Your task to perform on an android device: Search for flights from Tokyo to NYC Image 0: 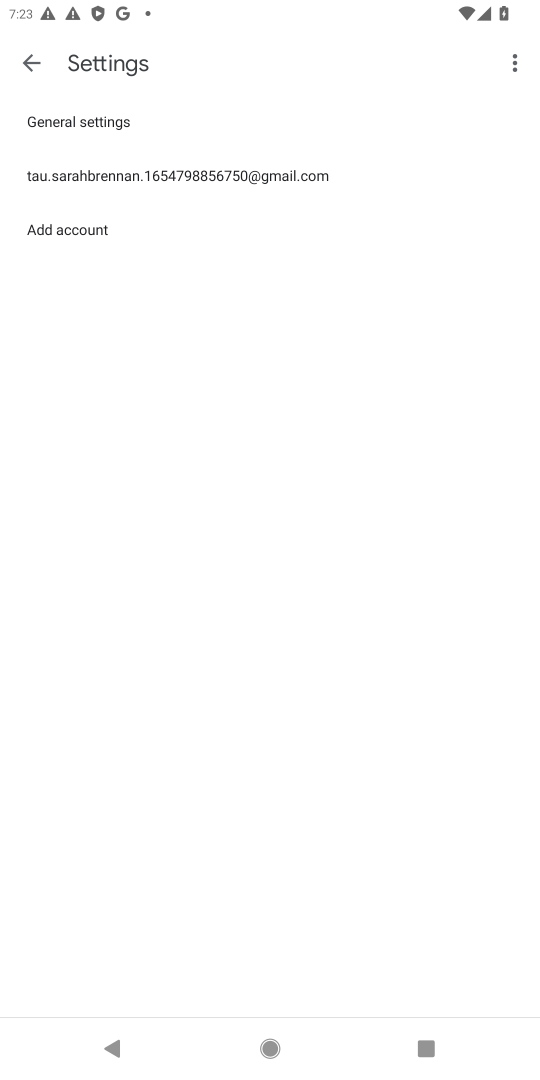
Step 0: press home button
Your task to perform on an android device: Search for flights from Tokyo to NYC Image 1: 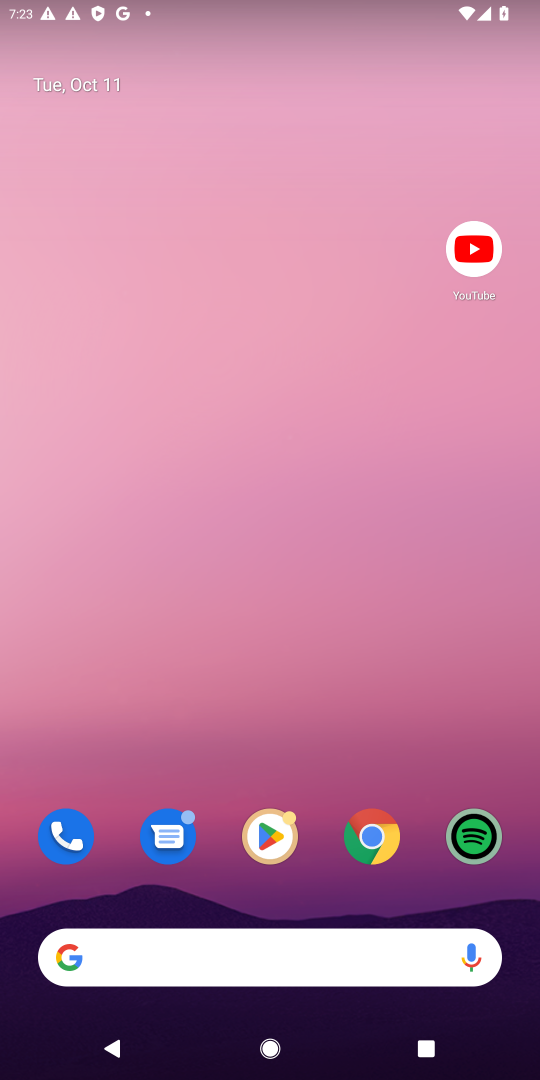
Step 1: click (366, 829)
Your task to perform on an android device: Search for flights from Tokyo to NYC Image 2: 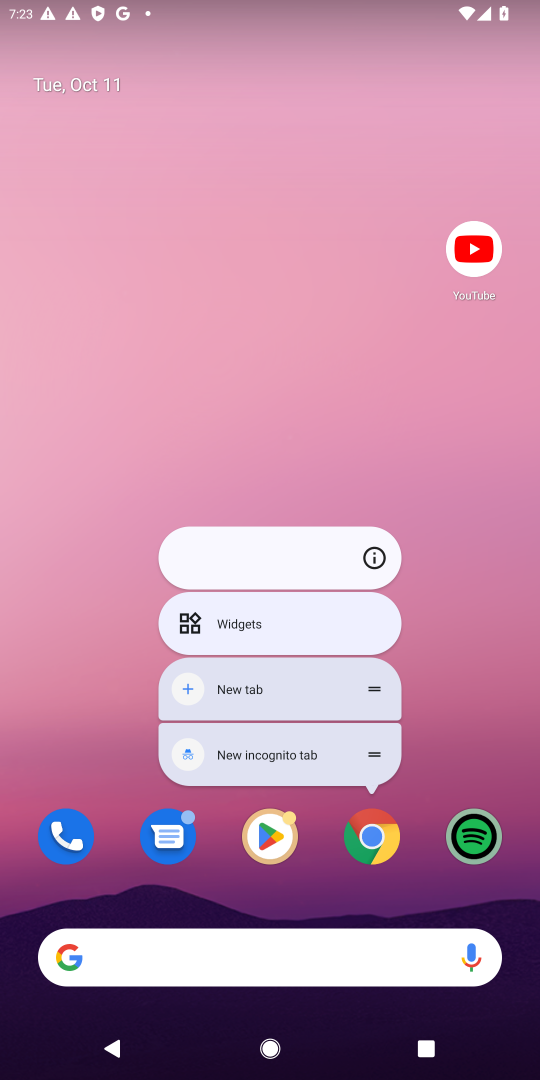
Step 2: click (366, 826)
Your task to perform on an android device: Search for flights from Tokyo to NYC Image 3: 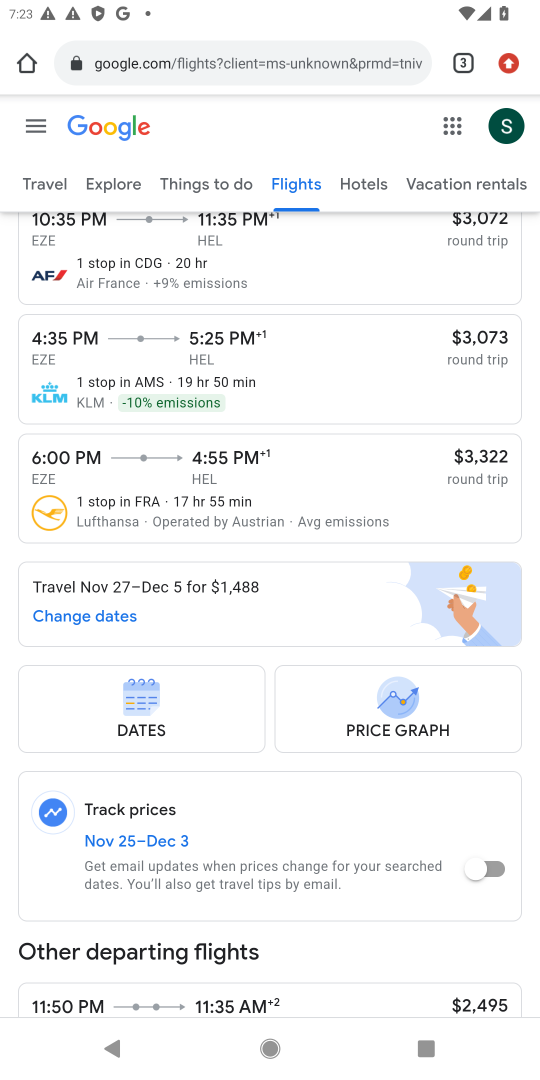
Step 3: click (335, 59)
Your task to perform on an android device: Search for flights from Tokyo to NYC Image 4: 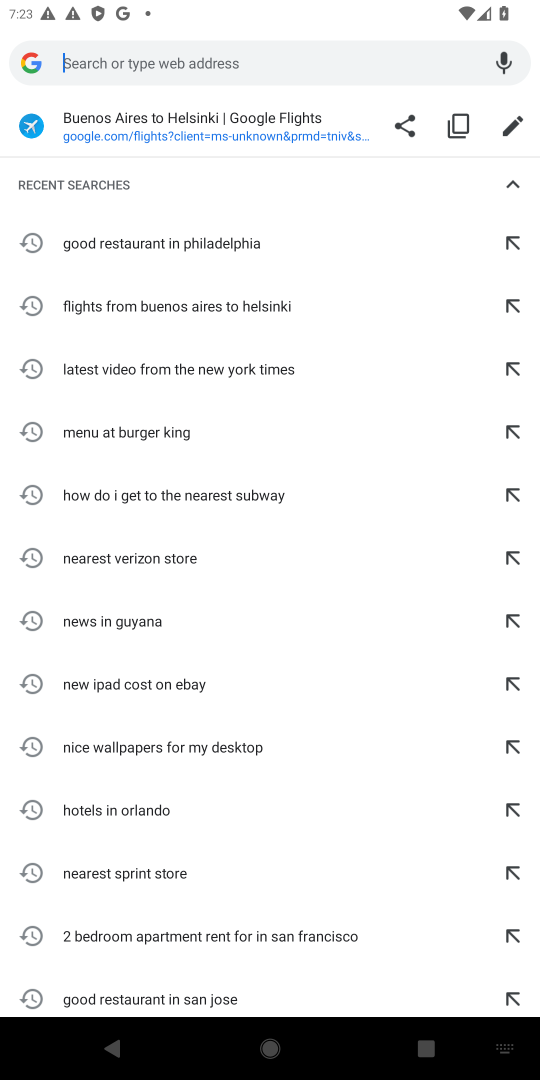
Step 4: type "flights from Tokyo to NYC"
Your task to perform on an android device: Search for flights from Tokyo to NYC Image 5: 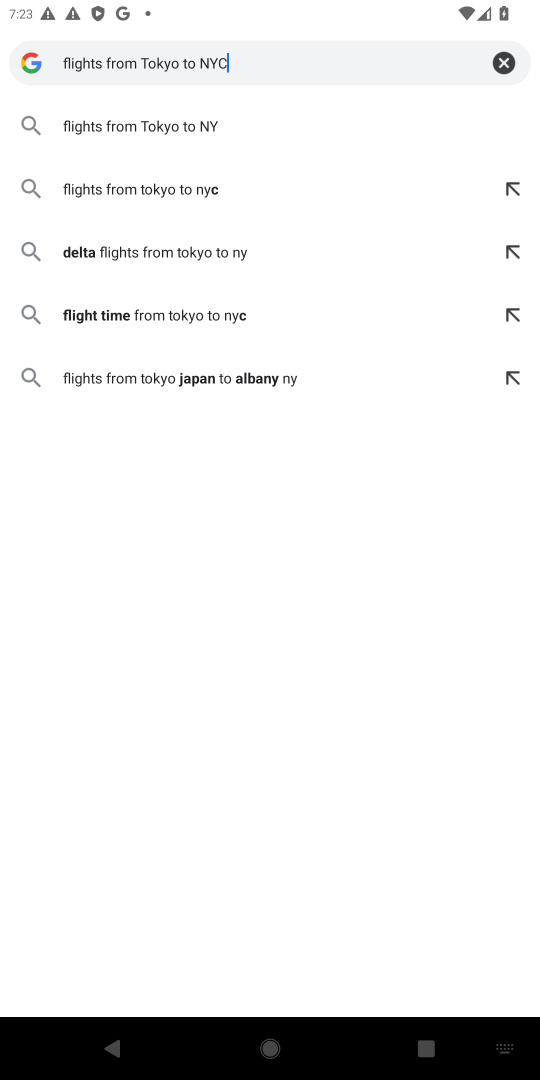
Step 5: press enter
Your task to perform on an android device: Search for flights from Tokyo to NYC Image 6: 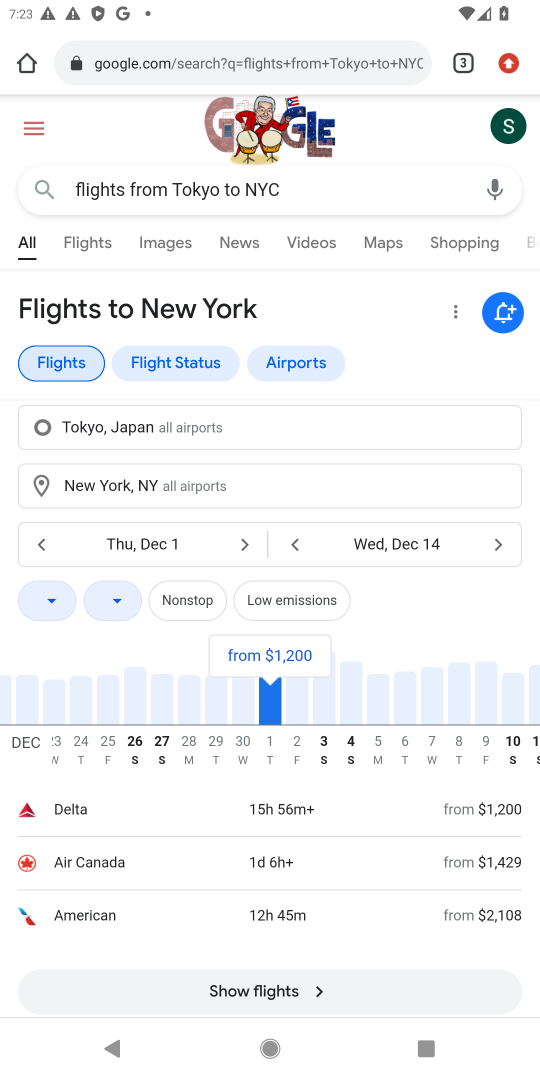
Step 6: drag from (236, 918) to (436, 249)
Your task to perform on an android device: Search for flights from Tokyo to NYC Image 7: 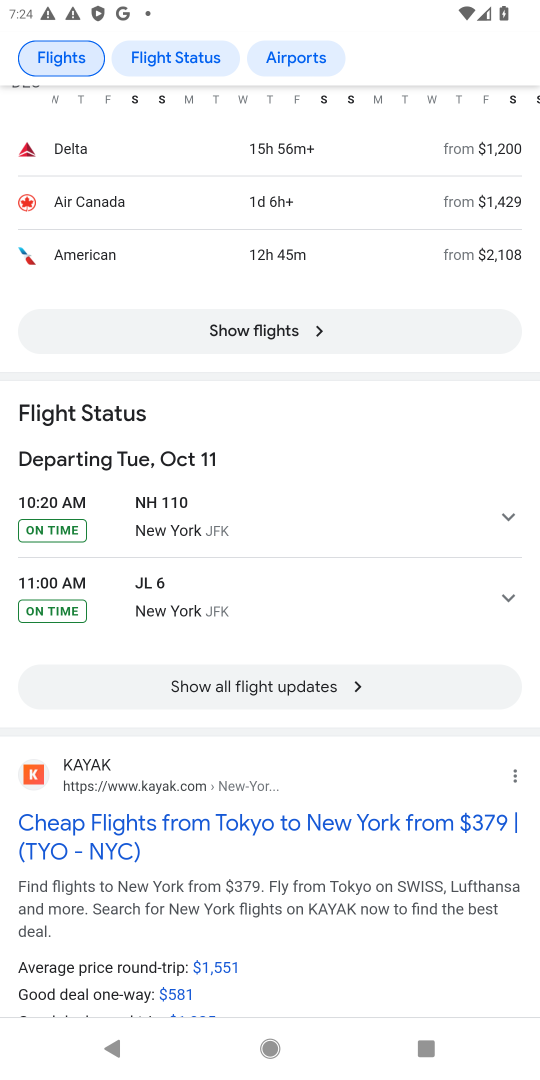
Step 7: click (291, 684)
Your task to perform on an android device: Search for flights from Tokyo to NYC Image 8: 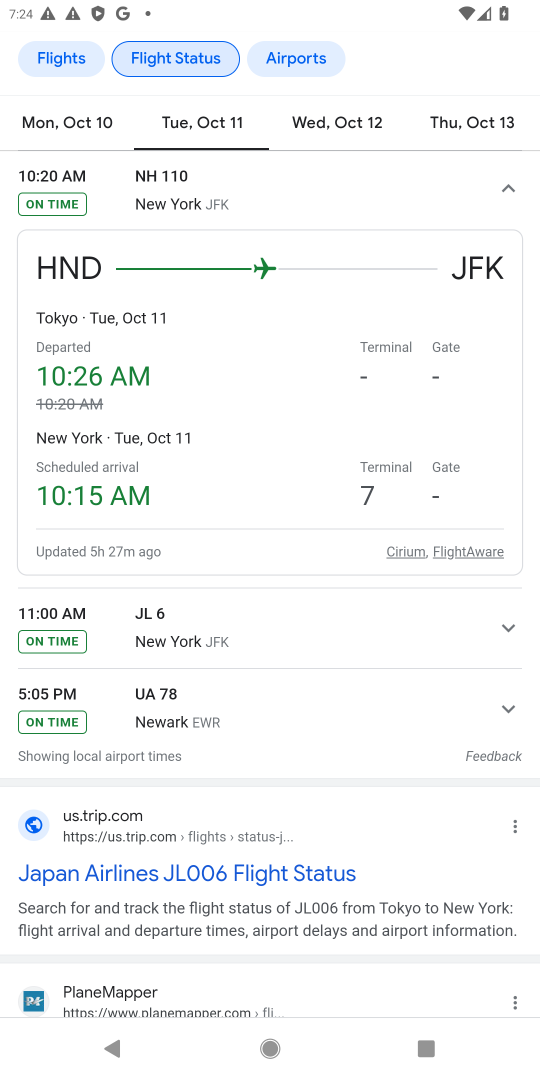
Step 8: task complete